Your task to perform on an android device: choose inbox layout in the gmail app Image 0: 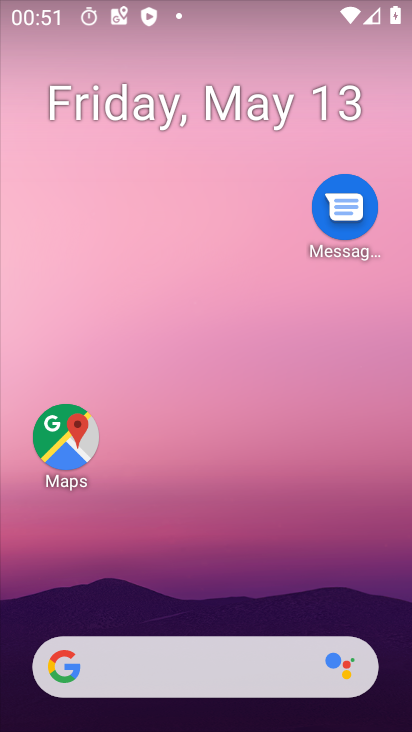
Step 0: press home button
Your task to perform on an android device: choose inbox layout in the gmail app Image 1: 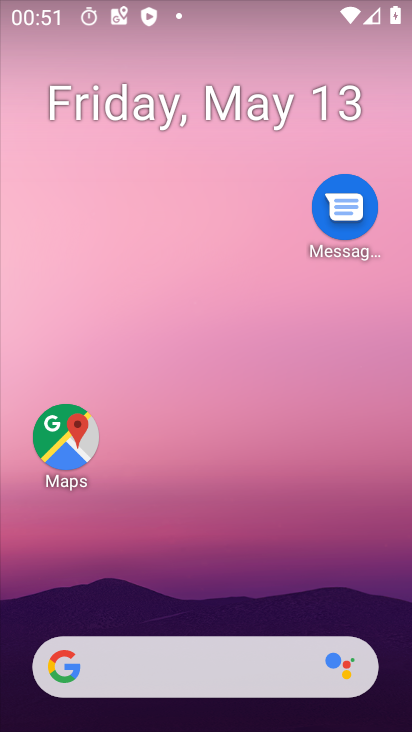
Step 1: click (194, 13)
Your task to perform on an android device: choose inbox layout in the gmail app Image 2: 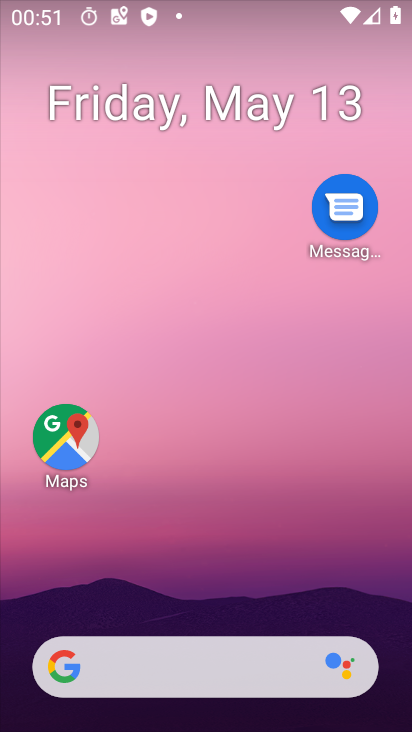
Step 2: drag from (285, 316) to (337, 77)
Your task to perform on an android device: choose inbox layout in the gmail app Image 3: 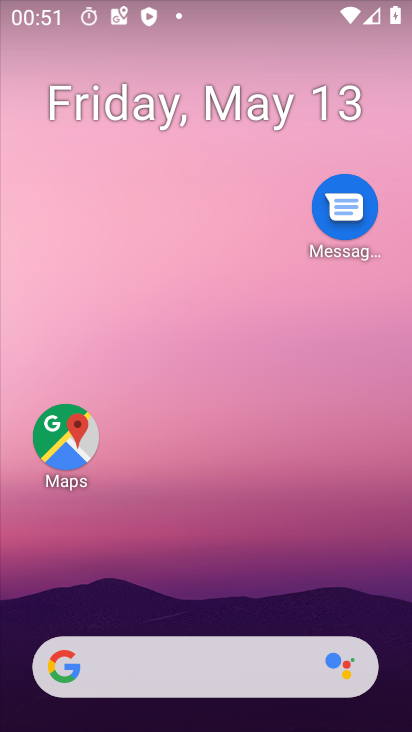
Step 3: drag from (194, 582) to (245, 3)
Your task to perform on an android device: choose inbox layout in the gmail app Image 4: 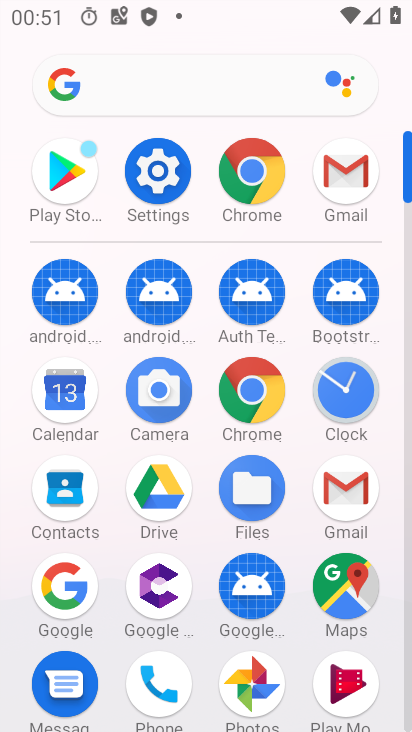
Step 4: click (345, 200)
Your task to perform on an android device: choose inbox layout in the gmail app Image 5: 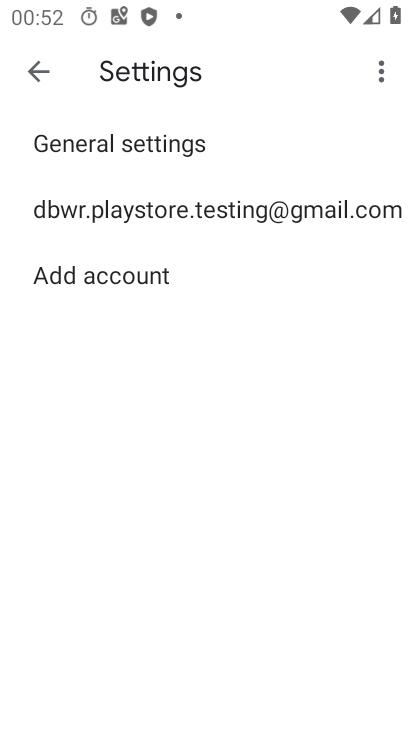
Step 5: click (279, 208)
Your task to perform on an android device: choose inbox layout in the gmail app Image 6: 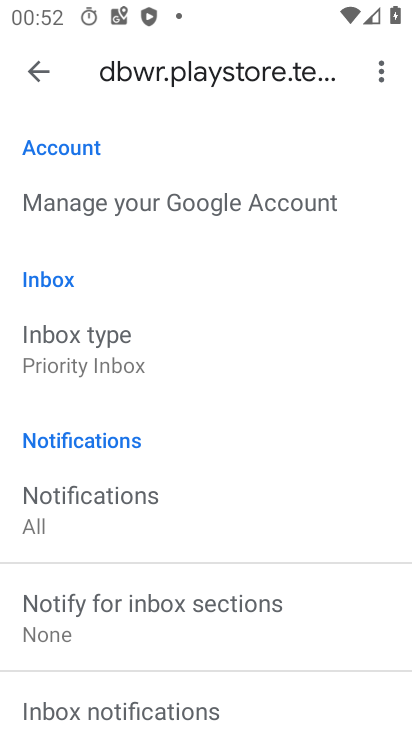
Step 6: click (114, 347)
Your task to perform on an android device: choose inbox layout in the gmail app Image 7: 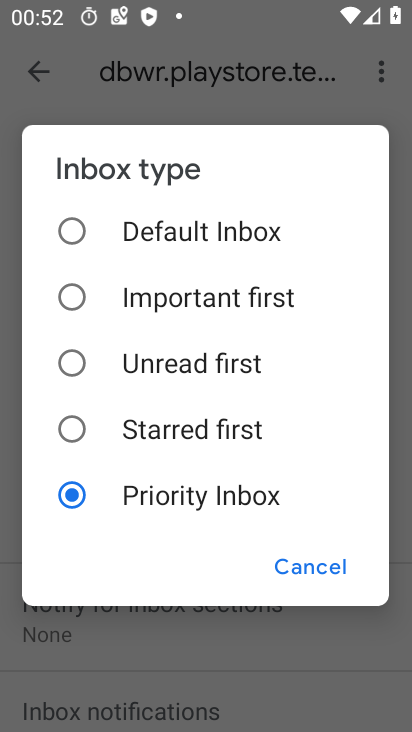
Step 7: click (107, 426)
Your task to perform on an android device: choose inbox layout in the gmail app Image 8: 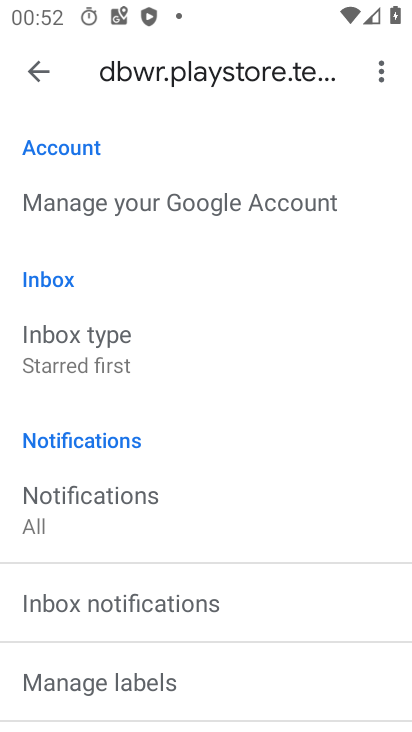
Step 8: task complete